Your task to perform on an android device: check out phone information Image 0: 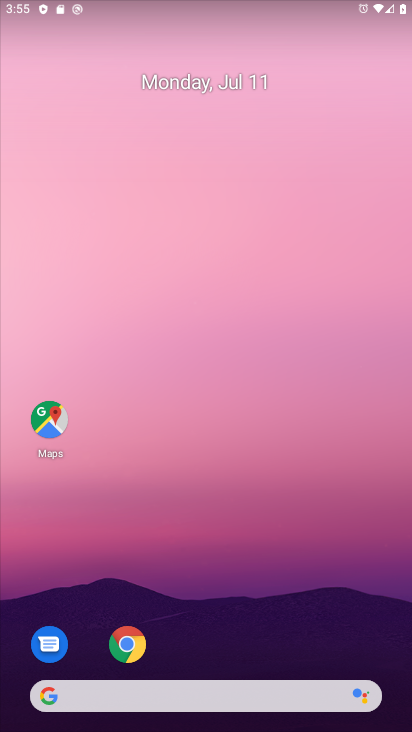
Step 0: drag from (306, 340) to (296, 112)
Your task to perform on an android device: check out phone information Image 1: 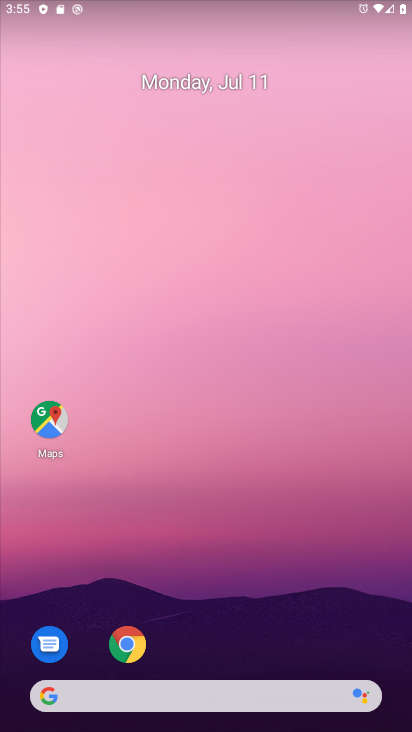
Step 1: drag from (207, 654) to (242, 17)
Your task to perform on an android device: check out phone information Image 2: 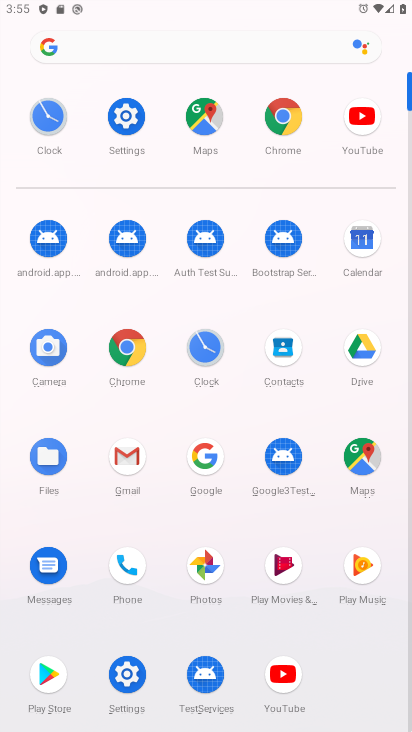
Step 2: click (127, 130)
Your task to perform on an android device: check out phone information Image 3: 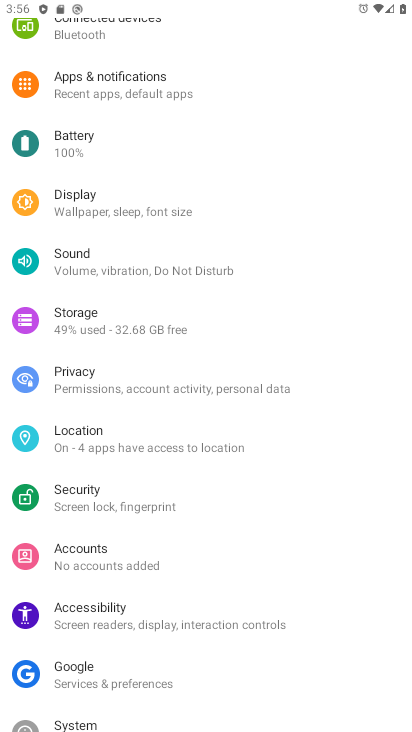
Step 3: drag from (320, 634) to (367, 178)
Your task to perform on an android device: check out phone information Image 4: 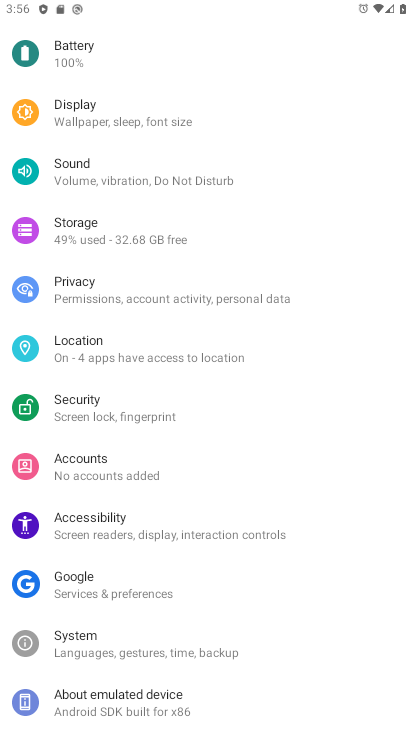
Step 4: click (176, 692)
Your task to perform on an android device: check out phone information Image 5: 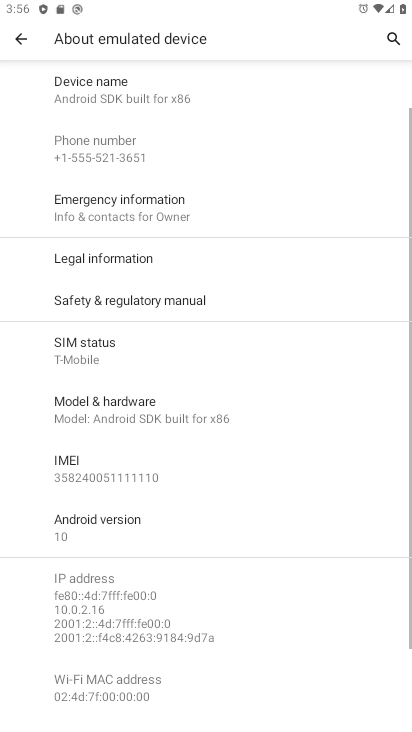
Step 5: task complete